Your task to perform on an android device: Search for vegetarian restaurants on Maps Image 0: 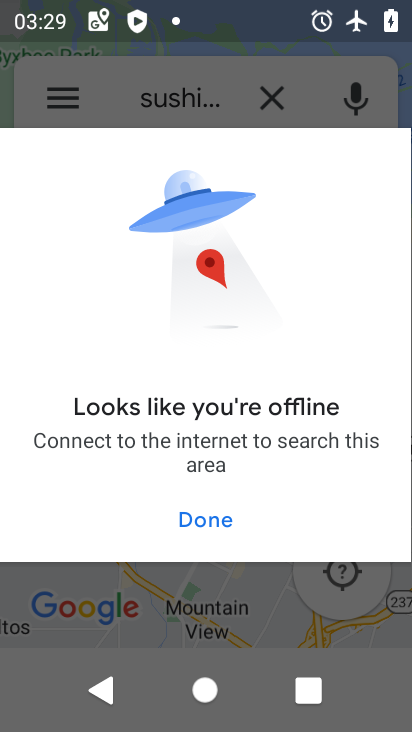
Step 0: task impossible